Your task to perform on an android device: turn off improve location accuracy Image 0: 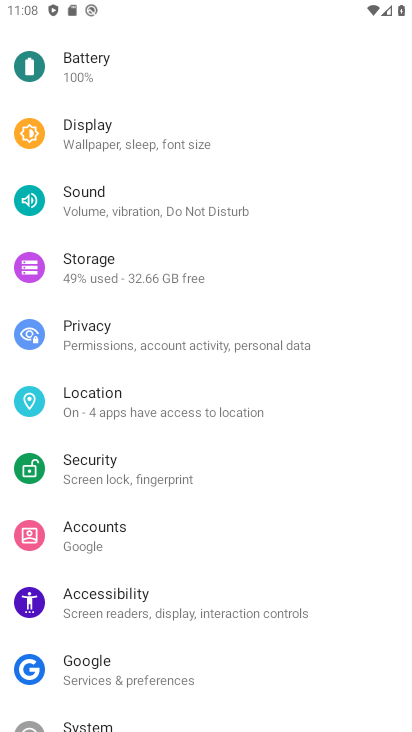
Step 0: click (125, 414)
Your task to perform on an android device: turn off improve location accuracy Image 1: 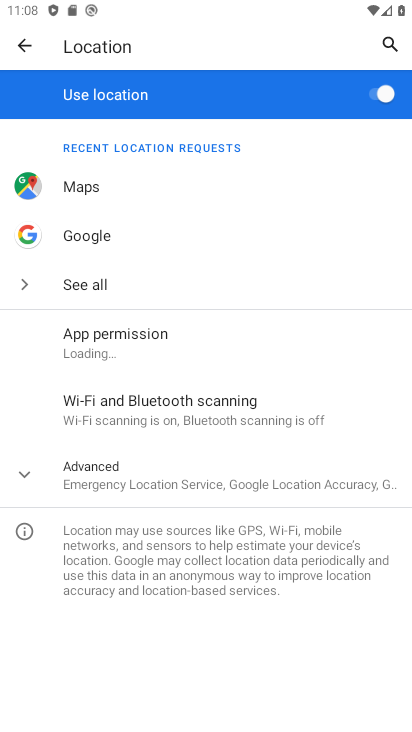
Step 1: click (139, 487)
Your task to perform on an android device: turn off improve location accuracy Image 2: 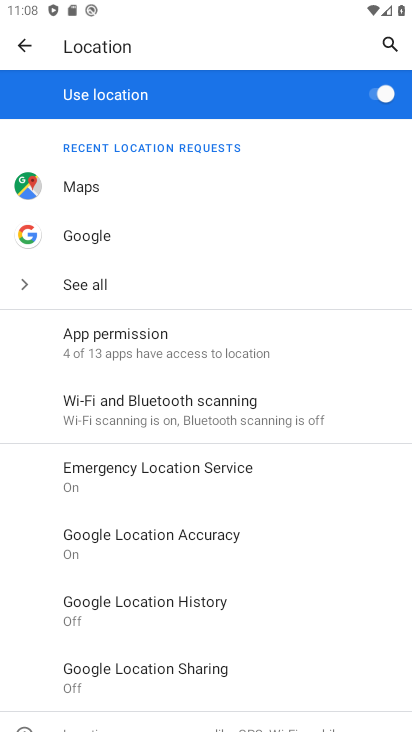
Step 2: click (127, 543)
Your task to perform on an android device: turn off improve location accuracy Image 3: 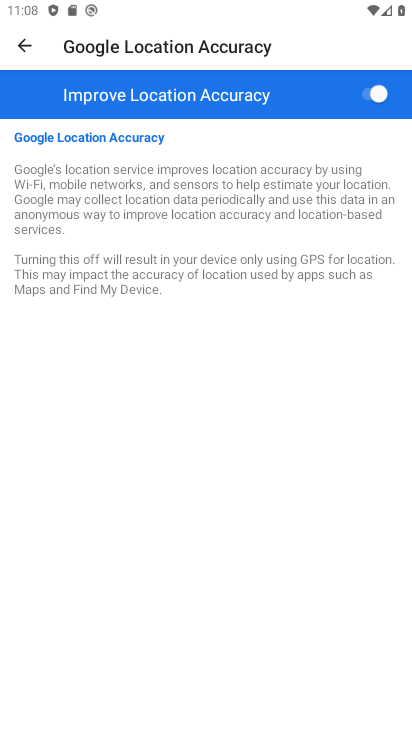
Step 3: click (353, 99)
Your task to perform on an android device: turn off improve location accuracy Image 4: 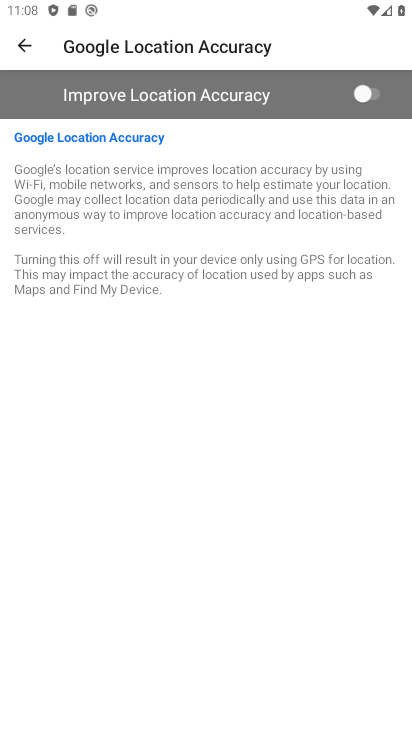
Step 4: task complete